Your task to perform on an android device: Go to calendar. Show me events next week Image 0: 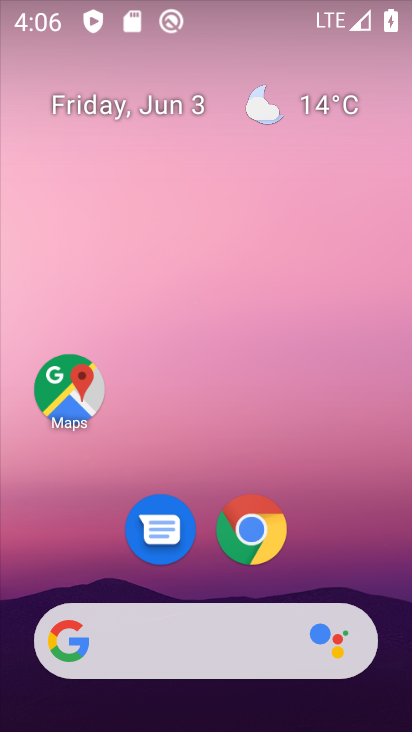
Step 0: press home button
Your task to perform on an android device: Go to calendar. Show me events next week Image 1: 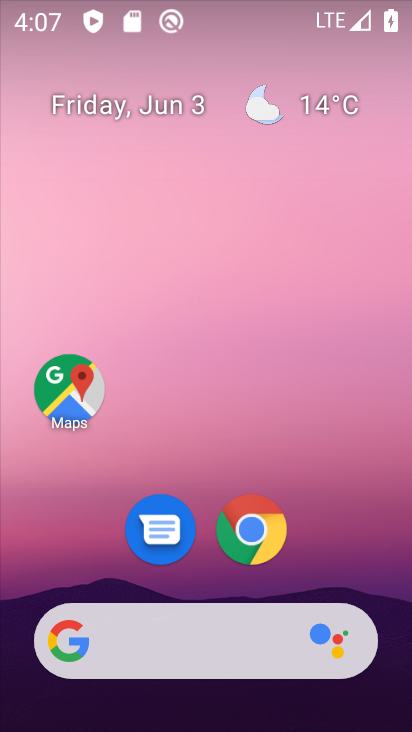
Step 1: drag from (212, 579) to (210, 123)
Your task to perform on an android device: Go to calendar. Show me events next week Image 2: 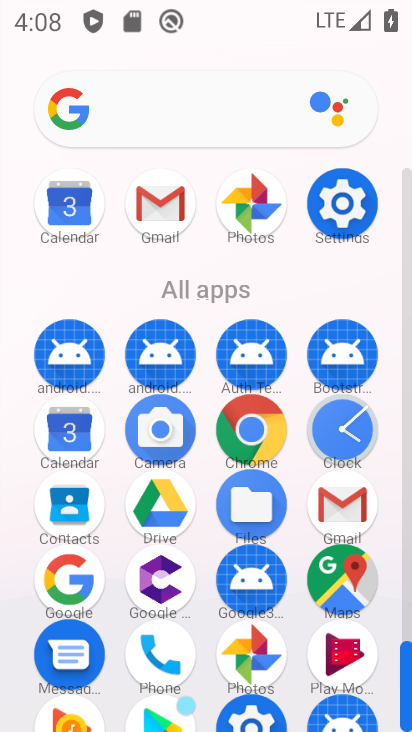
Step 2: click (71, 429)
Your task to perform on an android device: Go to calendar. Show me events next week Image 3: 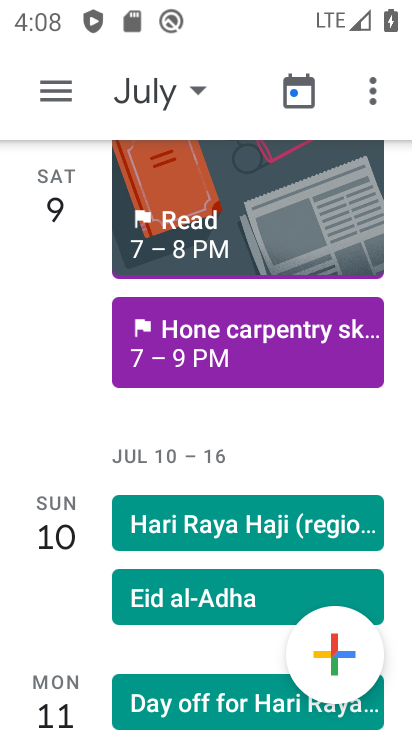
Step 3: click (192, 85)
Your task to perform on an android device: Go to calendar. Show me events next week Image 4: 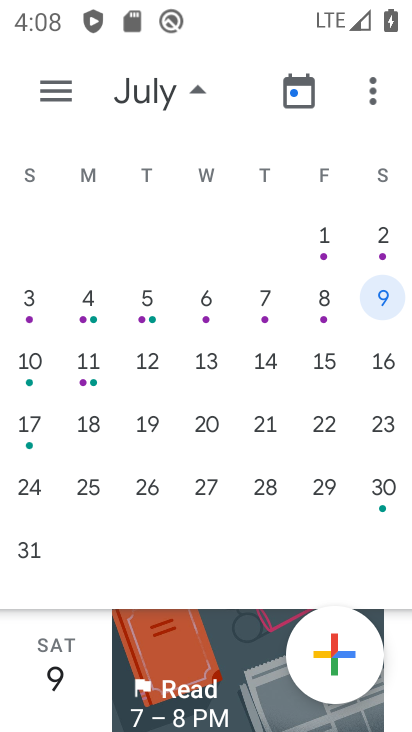
Step 4: drag from (60, 382) to (396, 380)
Your task to perform on an android device: Go to calendar. Show me events next week Image 5: 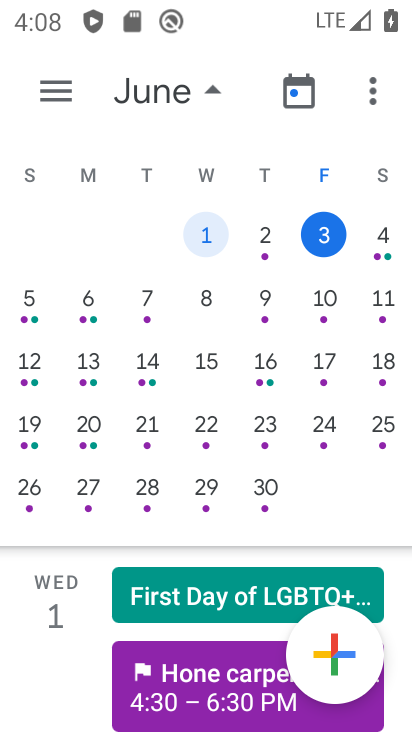
Step 5: click (27, 308)
Your task to perform on an android device: Go to calendar. Show me events next week Image 6: 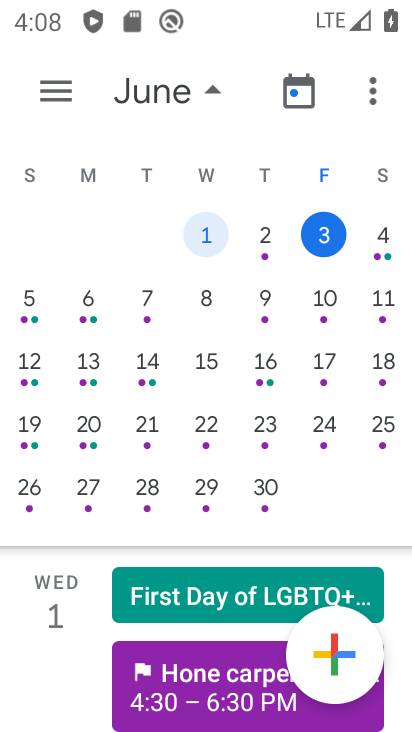
Step 6: click (27, 301)
Your task to perform on an android device: Go to calendar. Show me events next week Image 7: 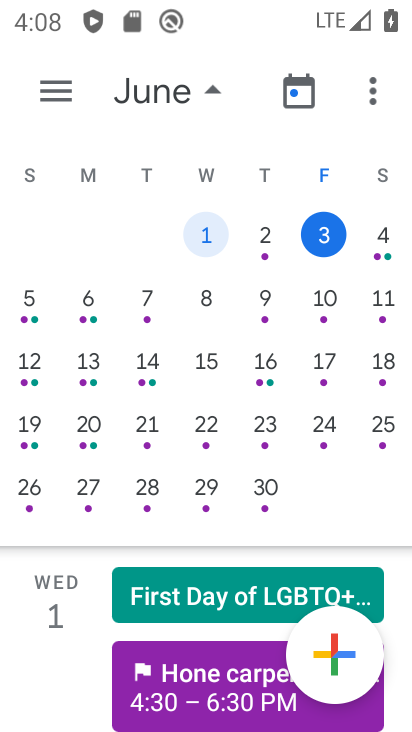
Step 7: click (45, 301)
Your task to perform on an android device: Go to calendar. Show me events next week Image 8: 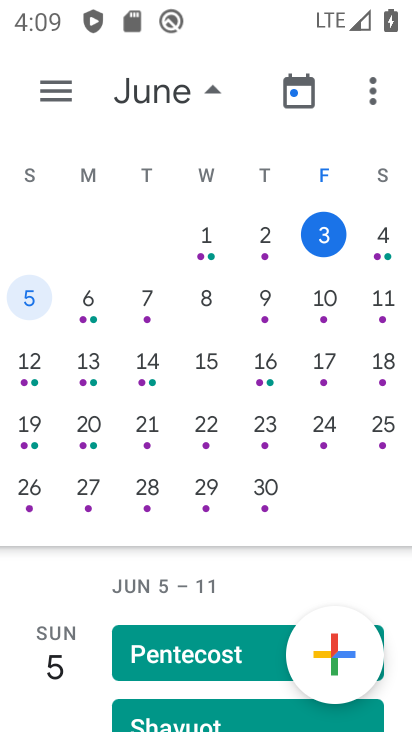
Step 8: click (212, 92)
Your task to perform on an android device: Go to calendar. Show me events next week Image 9: 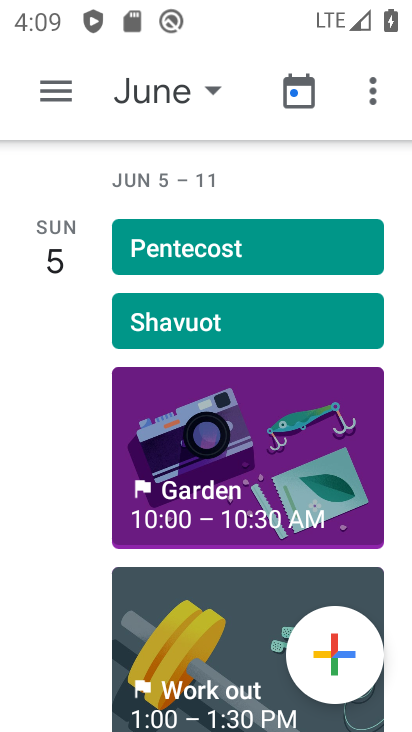
Step 9: task complete